Your task to perform on an android device: Open settings on Google Maps Image 0: 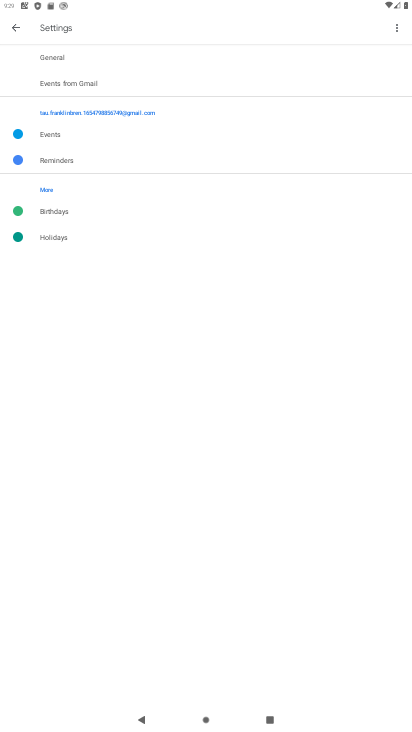
Step 0: press home button
Your task to perform on an android device: Open settings on Google Maps Image 1: 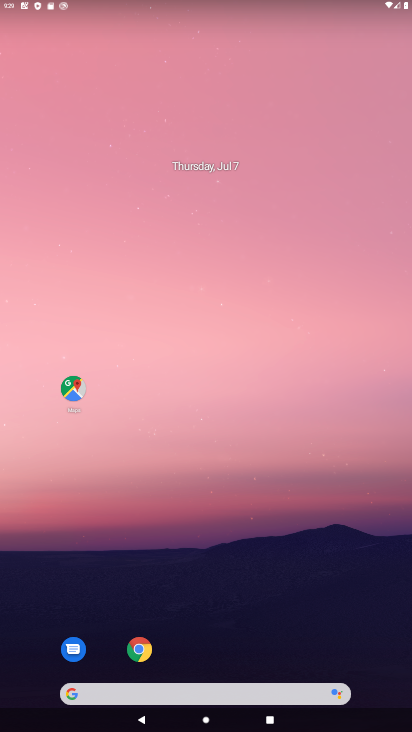
Step 1: drag from (303, 605) to (282, 222)
Your task to perform on an android device: Open settings on Google Maps Image 2: 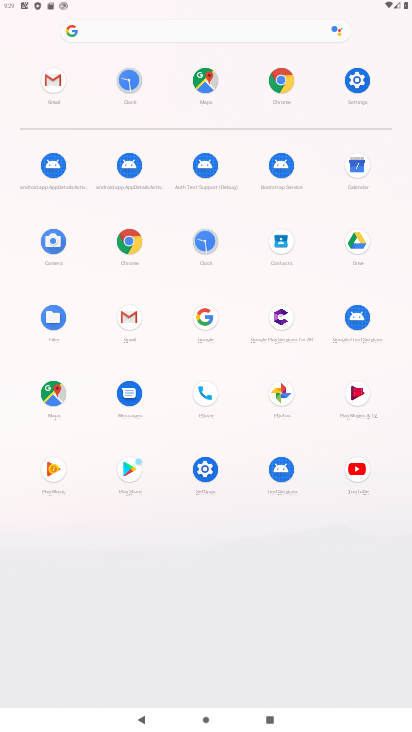
Step 2: click (51, 392)
Your task to perform on an android device: Open settings on Google Maps Image 3: 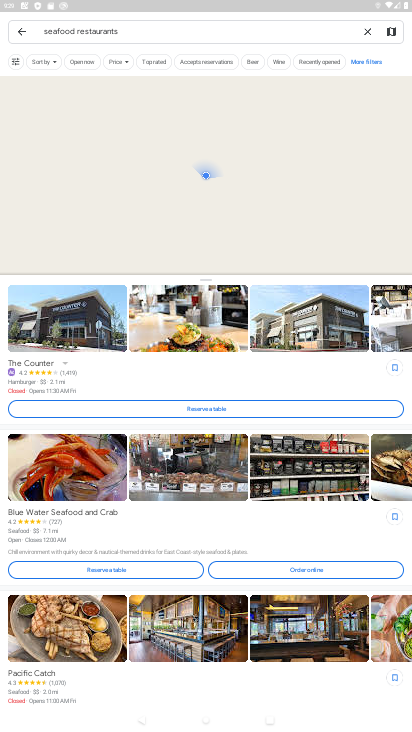
Step 3: click (20, 31)
Your task to perform on an android device: Open settings on Google Maps Image 4: 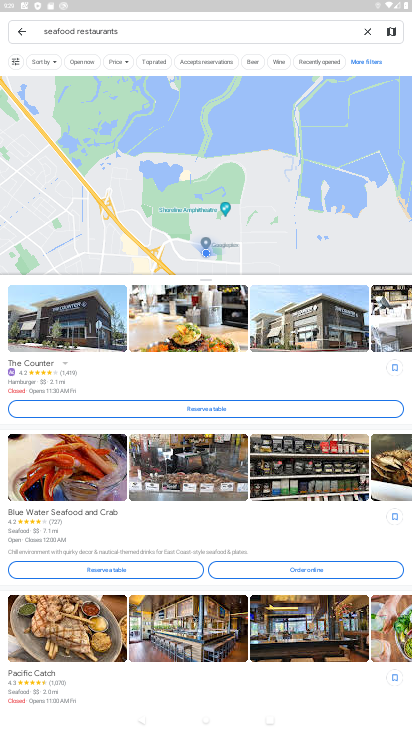
Step 4: click (20, 31)
Your task to perform on an android device: Open settings on Google Maps Image 5: 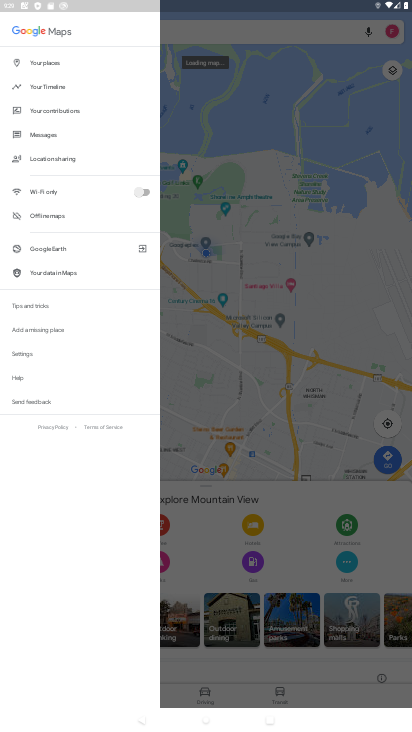
Step 5: click (20, 32)
Your task to perform on an android device: Open settings on Google Maps Image 6: 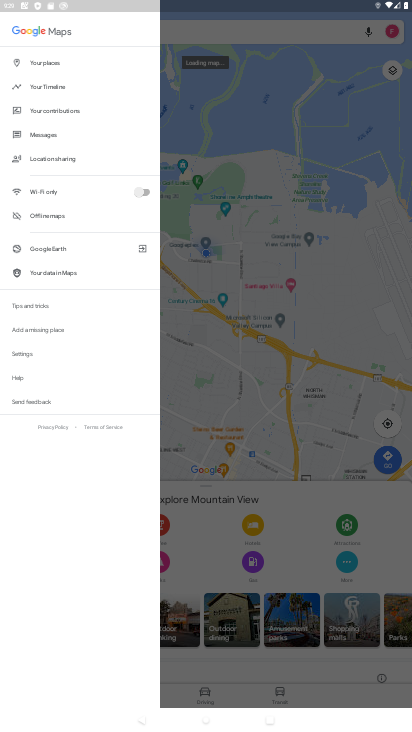
Step 6: click (31, 349)
Your task to perform on an android device: Open settings on Google Maps Image 7: 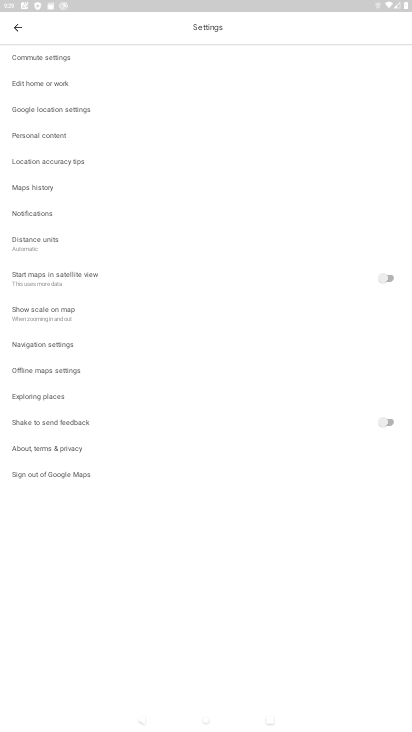
Step 7: task complete